Your task to perform on an android device: open app "Yahoo Mail" (install if not already installed) Image 0: 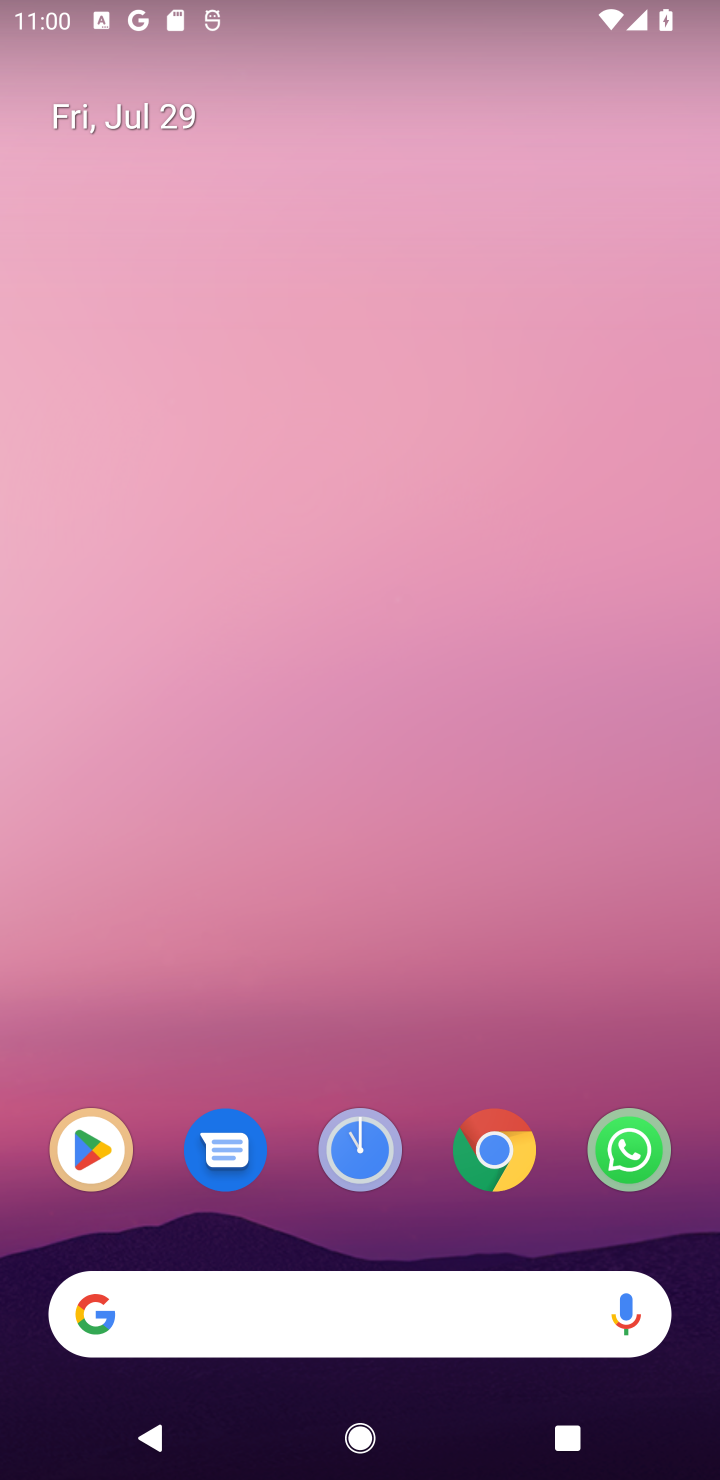
Step 0: click (105, 1122)
Your task to perform on an android device: open app "Yahoo Mail" (install if not already installed) Image 1: 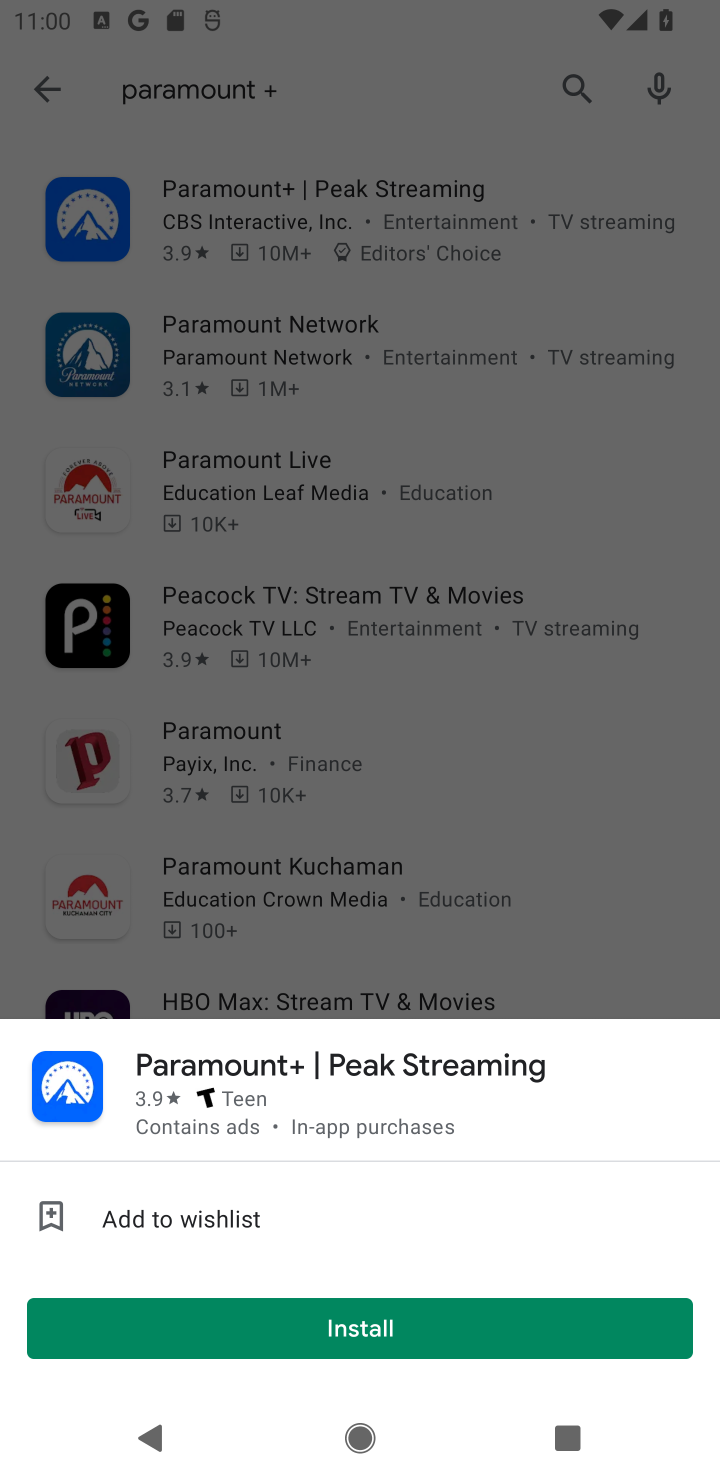
Step 1: click (569, 106)
Your task to perform on an android device: open app "Yahoo Mail" (install if not already installed) Image 2: 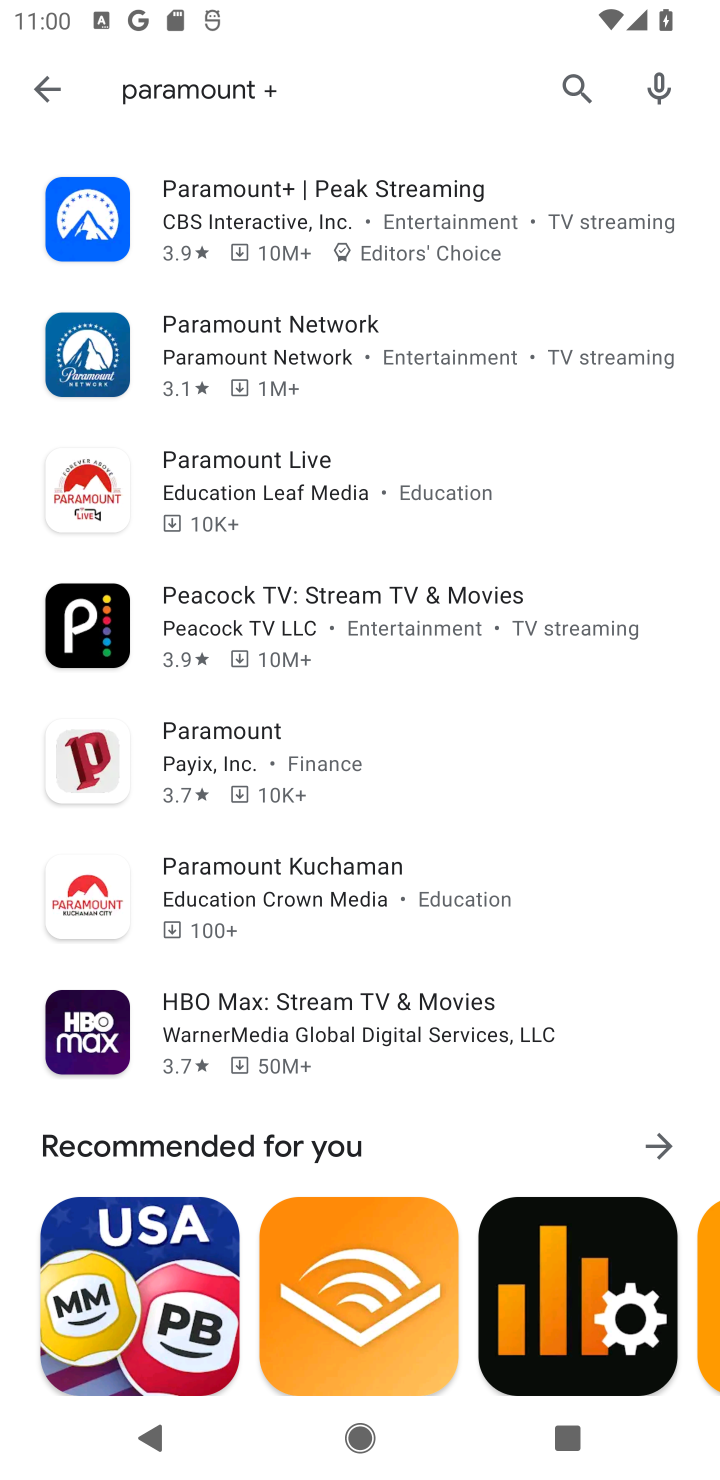
Step 2: click (564, 104)
Your task to perform on an android device: open app "Yahoo Mail" (install if not already installed) Image 3: 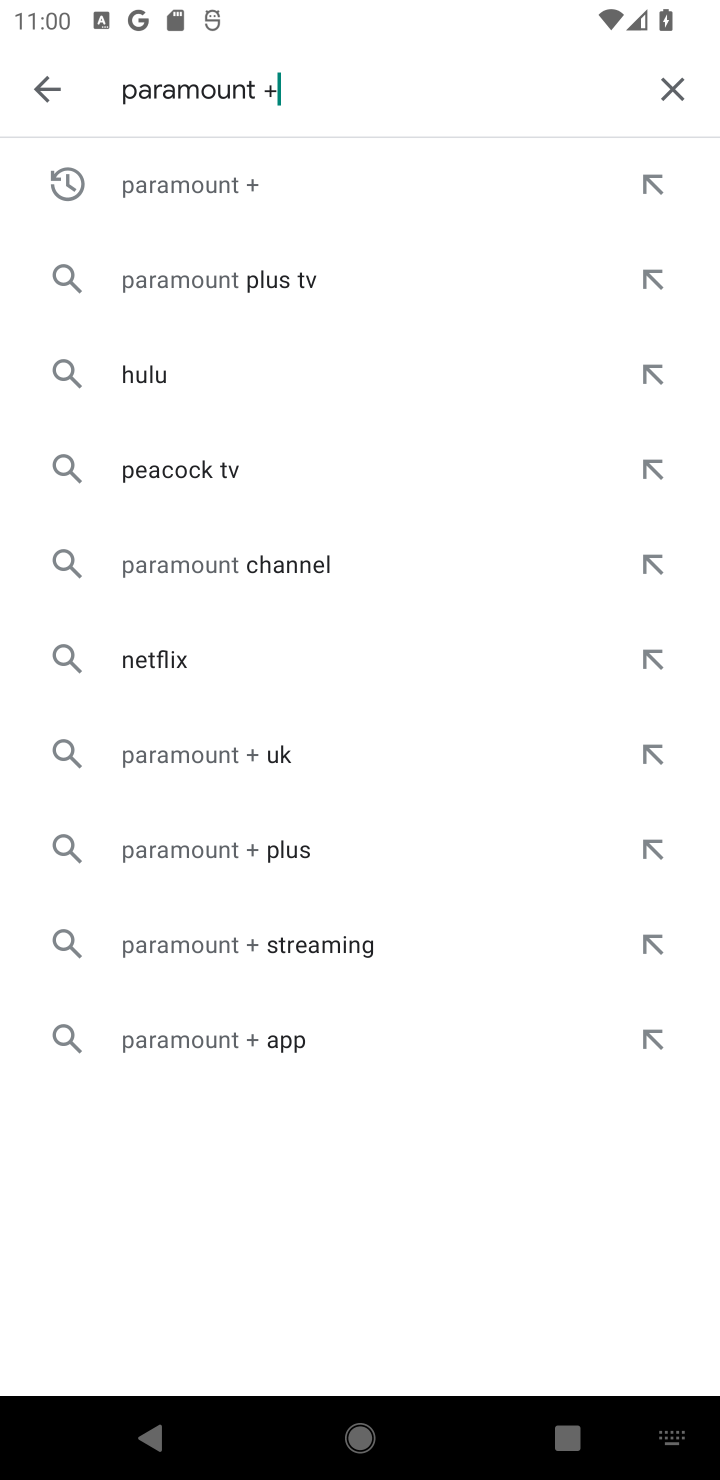
Step 3: click (668, 75)
Your task to perform on an android device: open app "Yahoo Mail" (install if not already installed) Image 4: 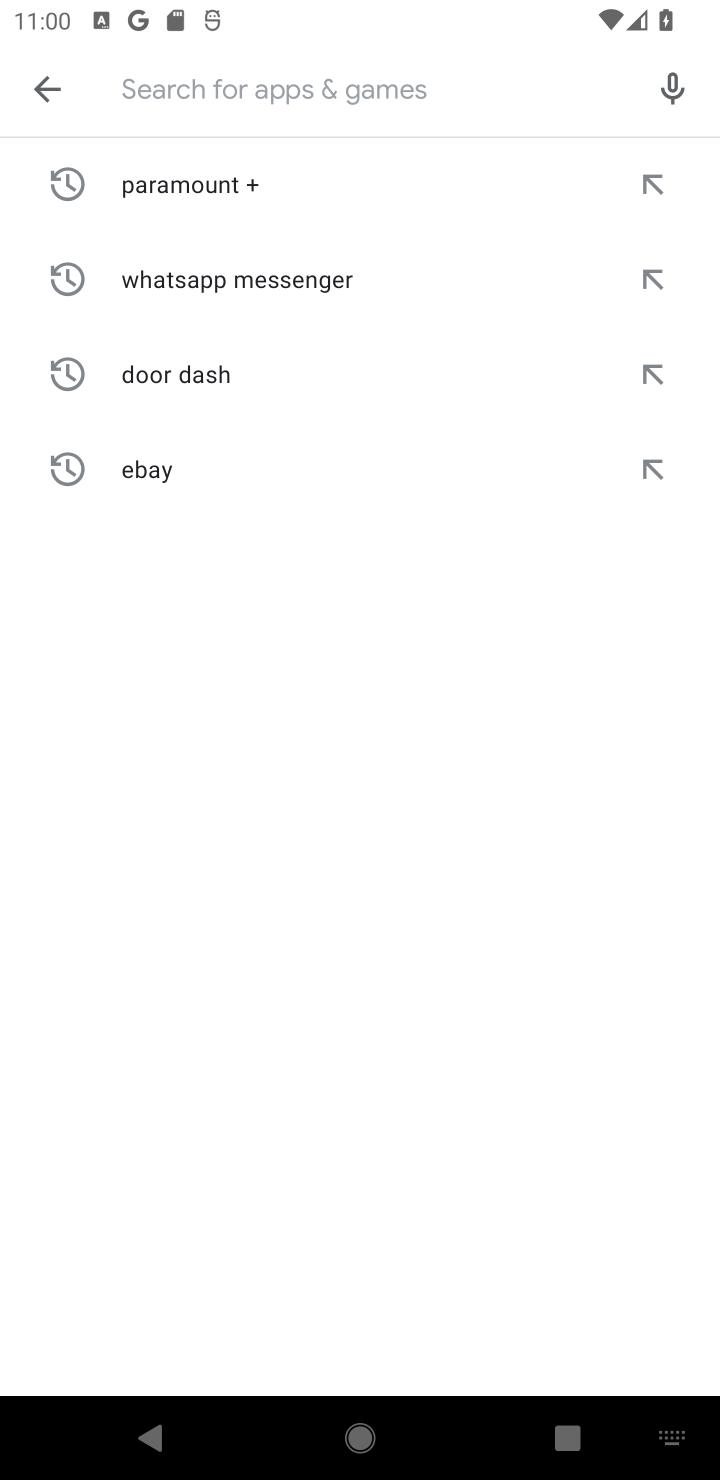
Step 4: click (322, 89)
Your task to perform on an android device: open app "Yahoo Mail" (install if not already installed) Image 5: 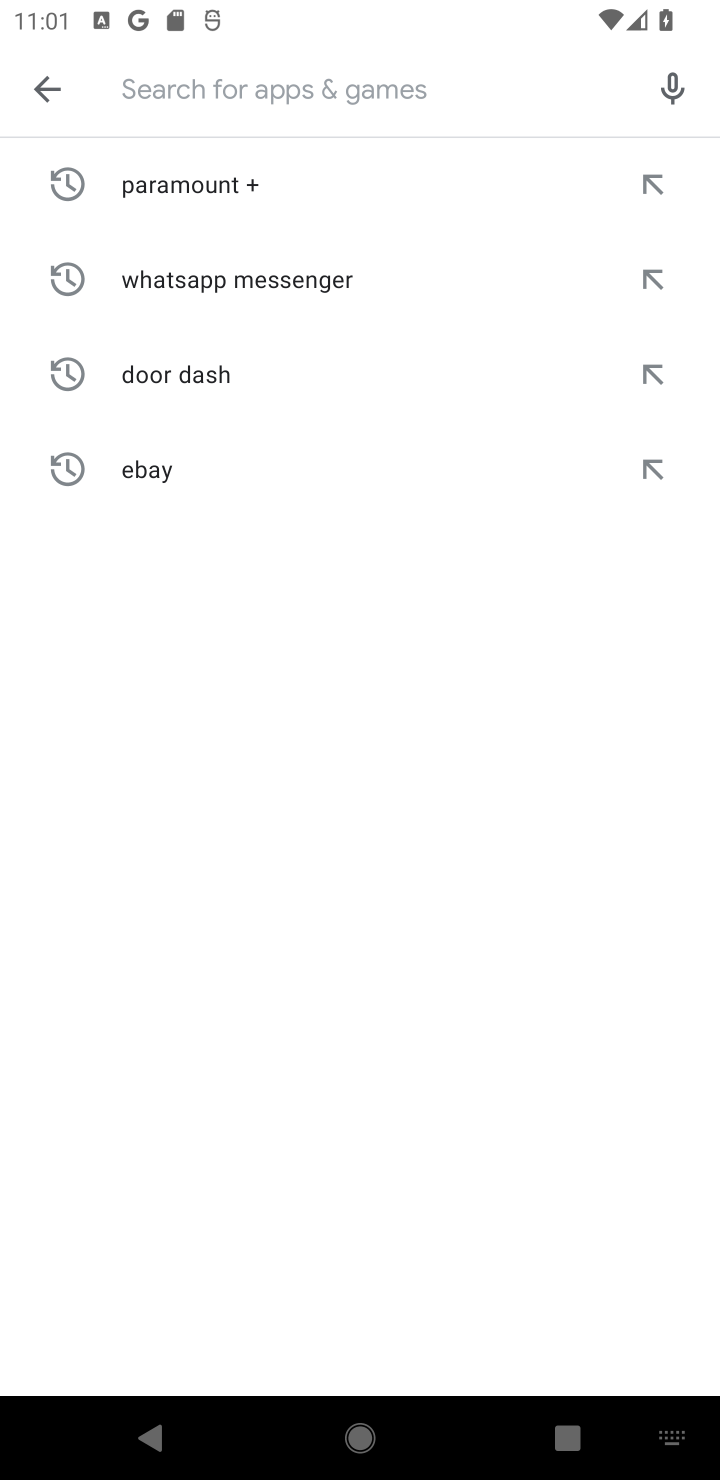
Step 5: type "yahoo"
Your task to perform on an android device: open app "Yahoo Mail" (install if not already installed) Image 6: 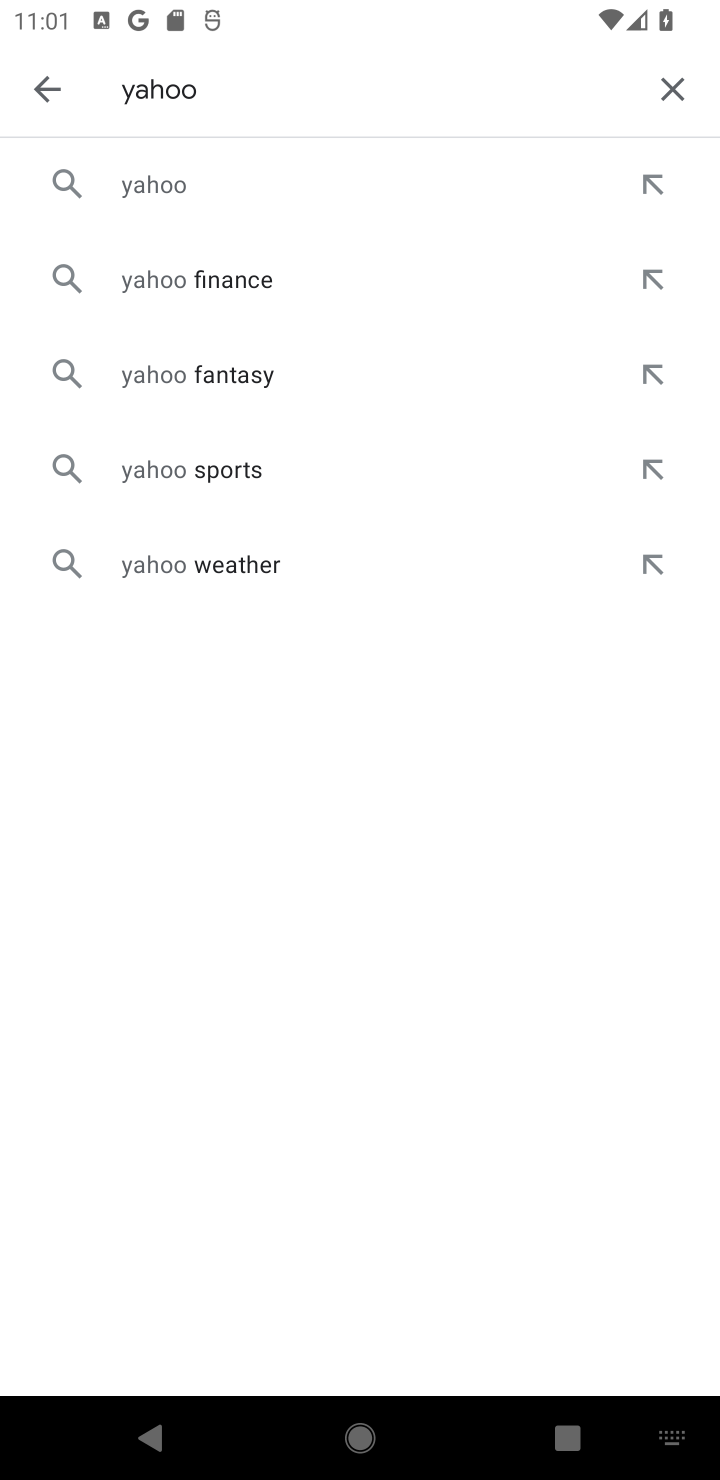
Step 6: click (236, 169)
Your task to perform on an android device: open app "Yahoo Mail" (install if not already installed) Image 7: 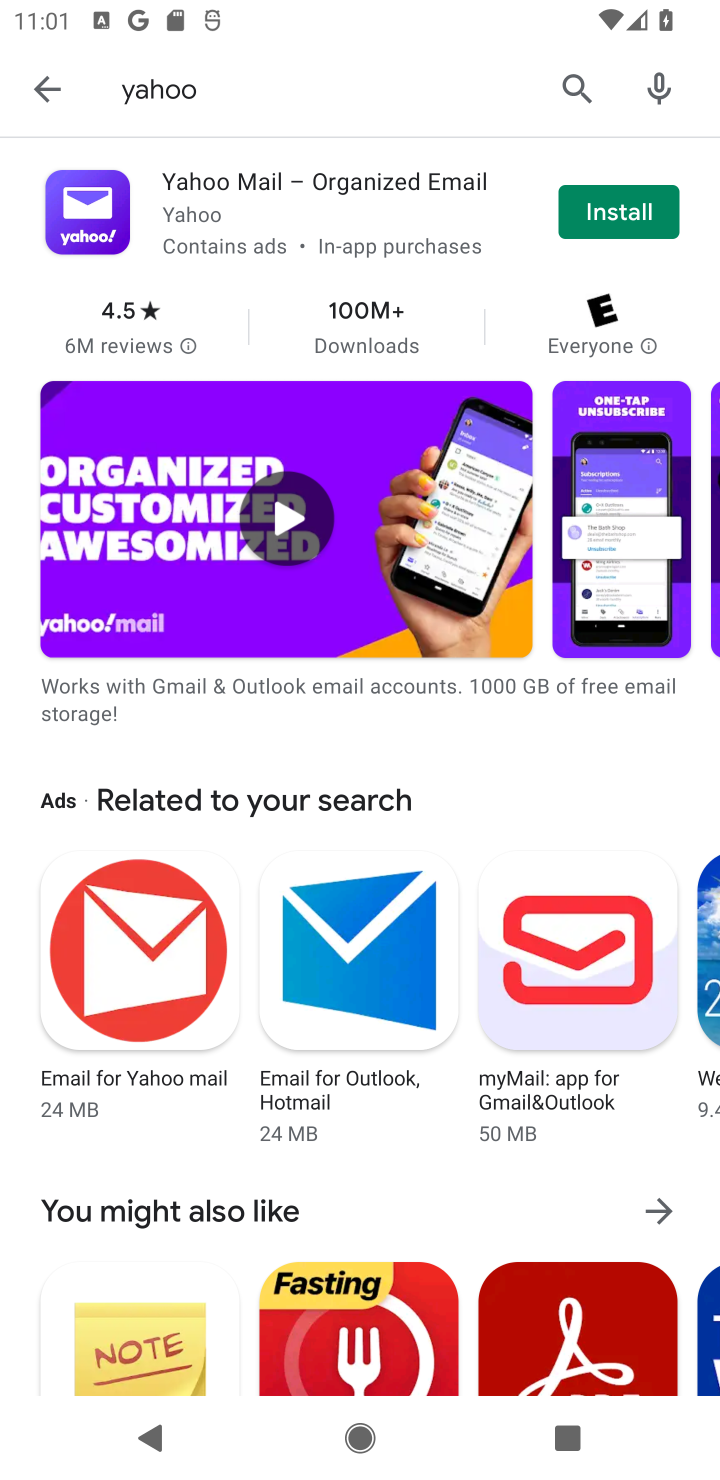
Step 7: click (622, 230)
Your task to perform on an android device: open app "Yahoo Mail" (install if not already installed) Image 8: 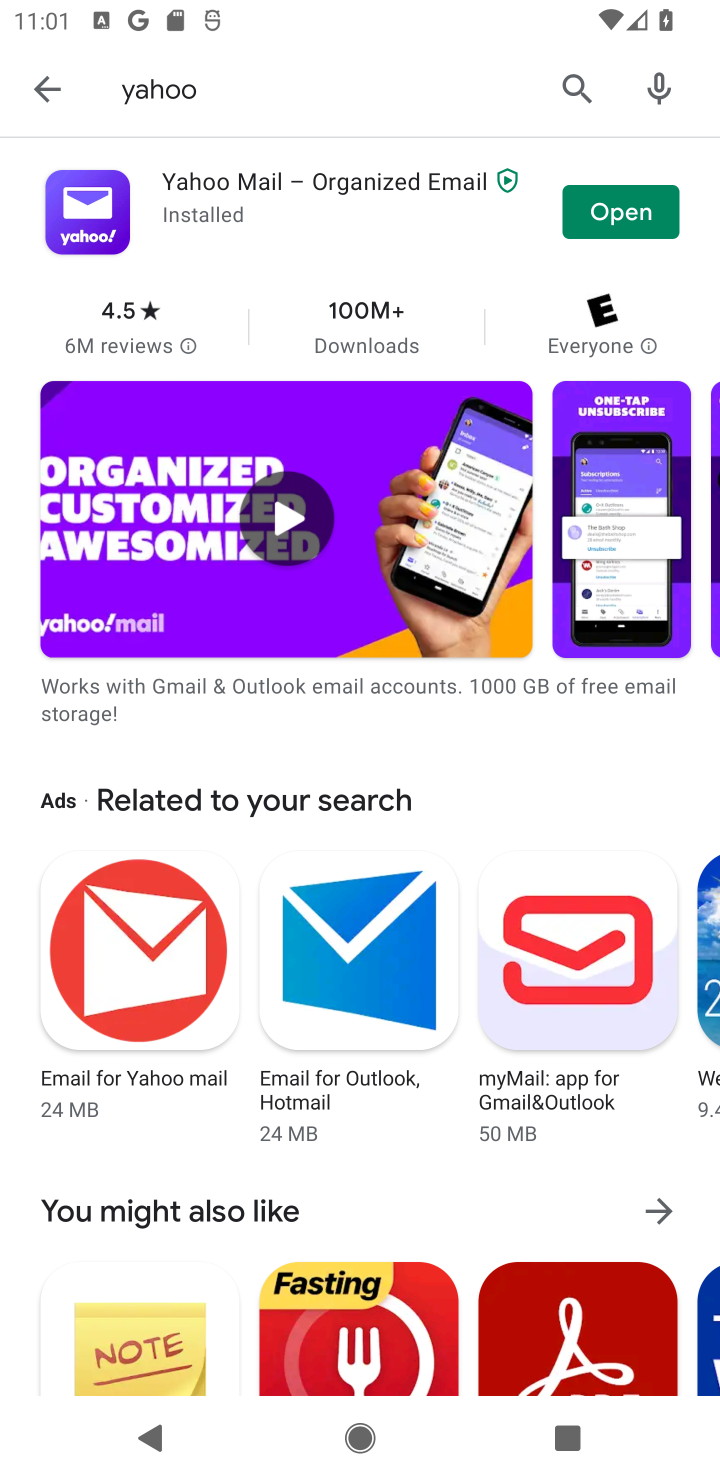
Step 8: click (645, 199)
Your task to perform on an android device: open app "Yahoo Mail" (install if not already installed) Image 9: 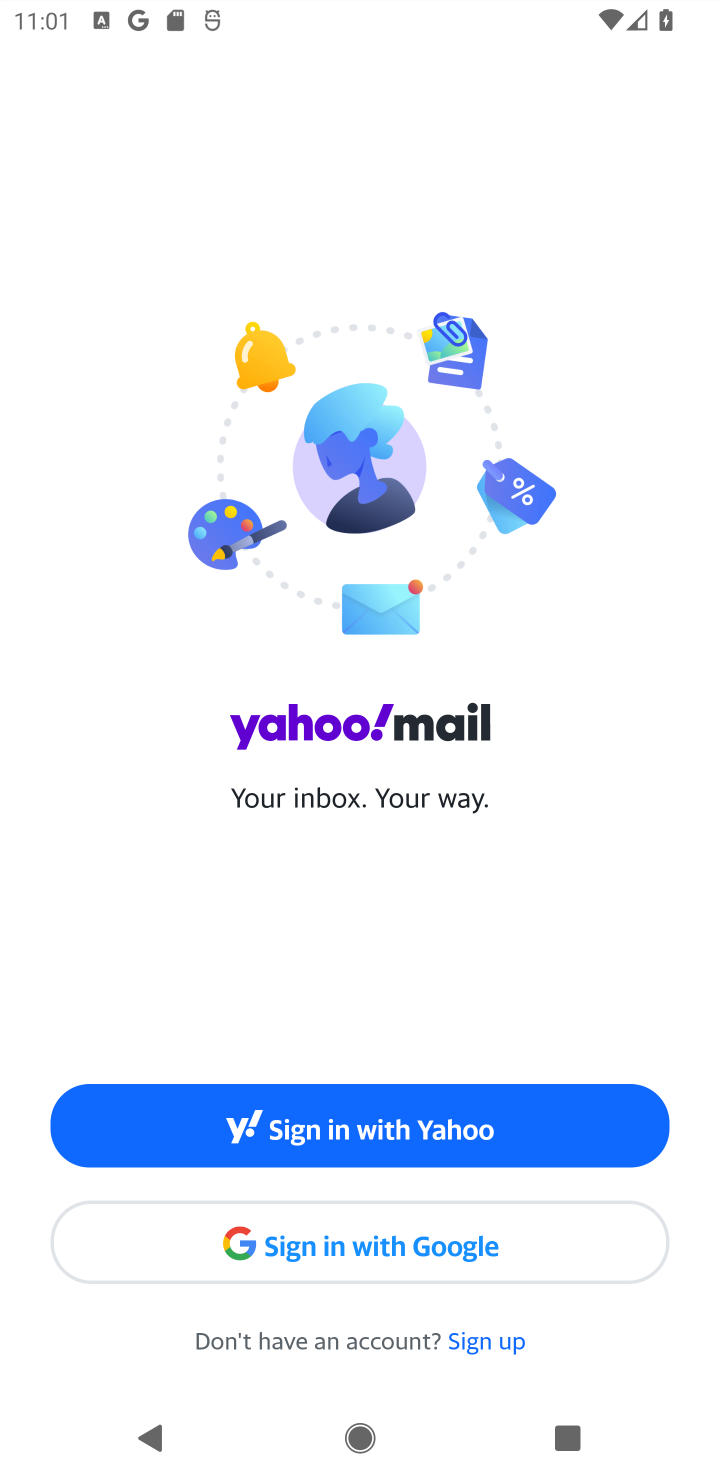
Step 9: task complete